Your task to perform on an android device: Open Youtube and go to the subscriptions tab Image 0: 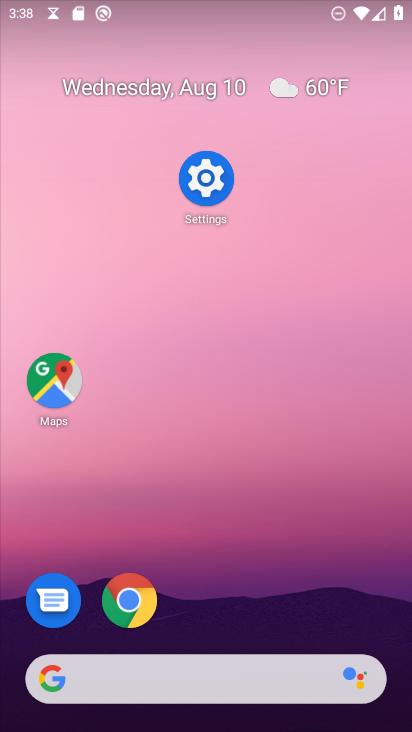
Step 0: press home button
Your task to perform on an android device: Open Youtube and go to the subscriptions tab Image 1: 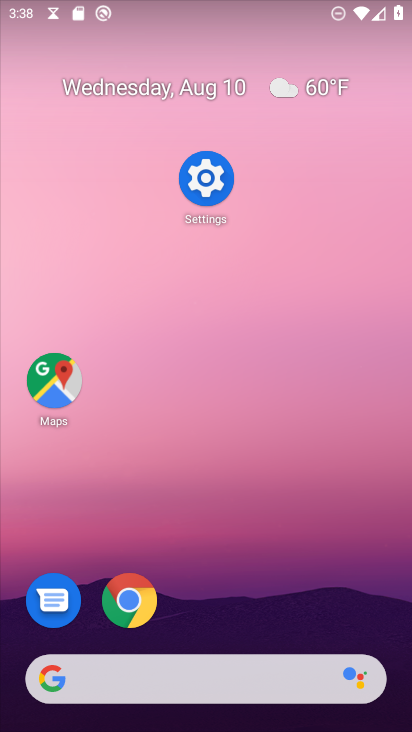
Step 1: drag from (252, 620) to (244, 39)
Your task to perform on an android device: Open Youtube and go to the subscriptions tab Image 2: 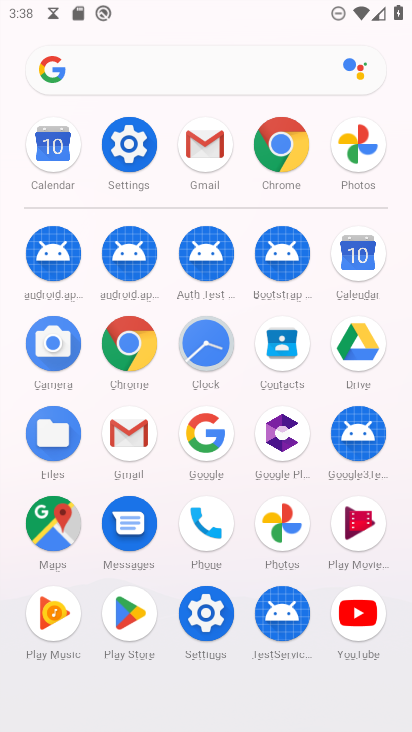
Step 2: click (356, 620)
Your task to perform on an android device: Open Youtube and go to the subscriptions tab Image 3: 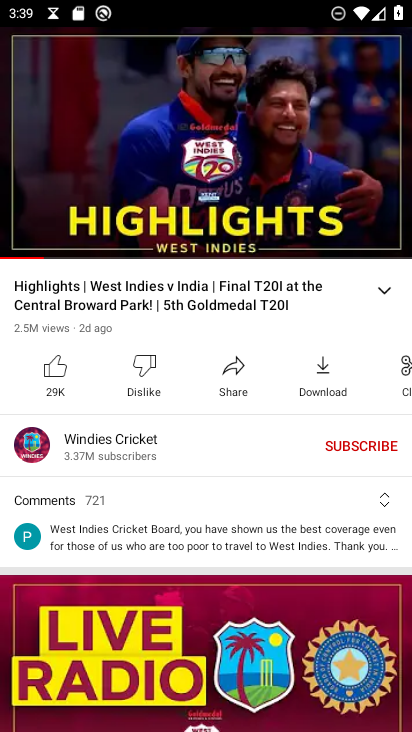
Step 3: drag from (282, 510) to (364, 2)
Your task to perform on an android device: Open Youtube and go to the subscriptions tab Image 4: 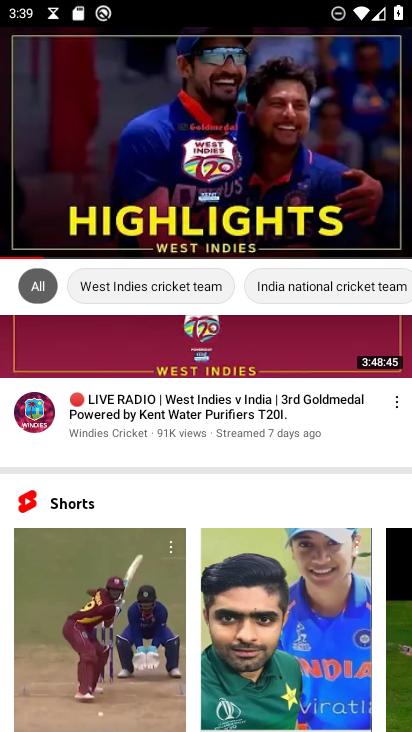
Step 4: press back button
Your task to perform on an android device: Open Youtube and go to the subscriptions tab Image 5: 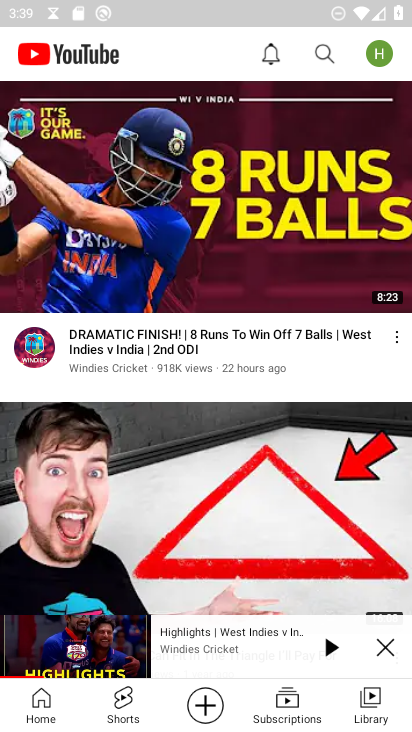
Step 5: click (296, 700)
Your task to perform on an android device: Open Youtube and go to the subscriptions tab Image 6: 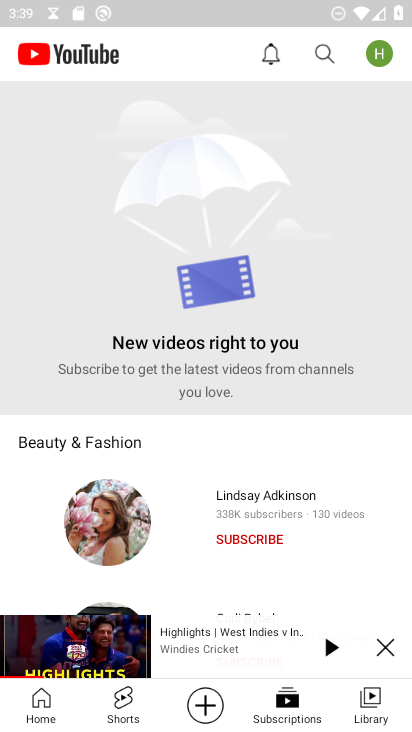
Step 6: task complete